Your task to perform on an android device: check data usage Image 0: 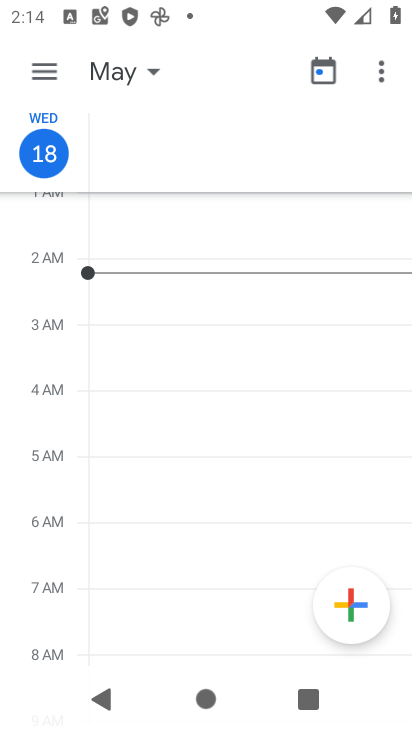
Step 0: press home button
Your task to perform on an android device: check data usage Image 1: 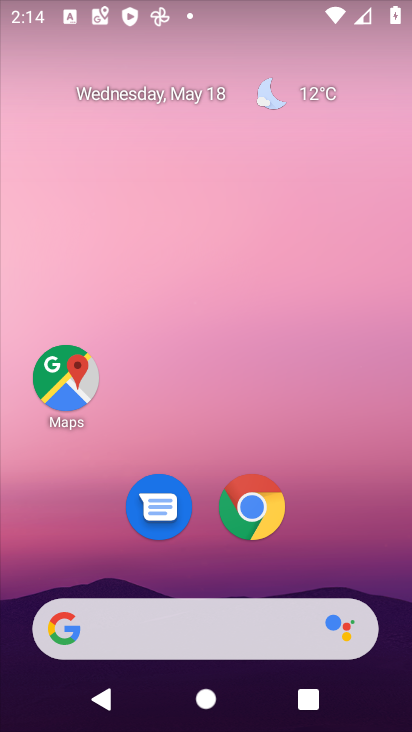
Step 1: drag from (396, 618) to (311, 169)
Your task to perform on an android device: check data usage Image 2: 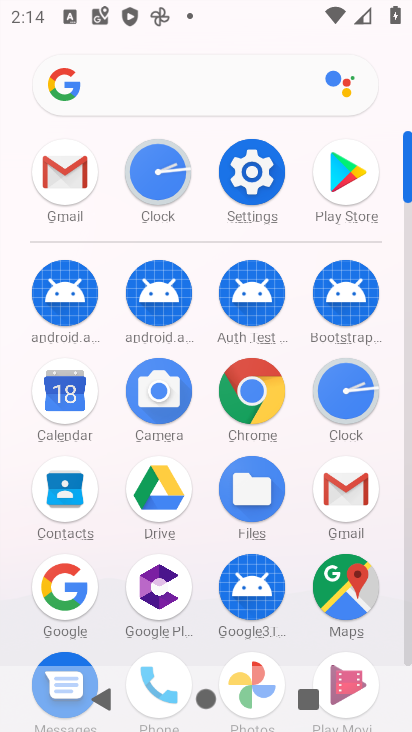
Step 2: click (408, 650)
Your task to perform on an android device: check data usage Image 3: 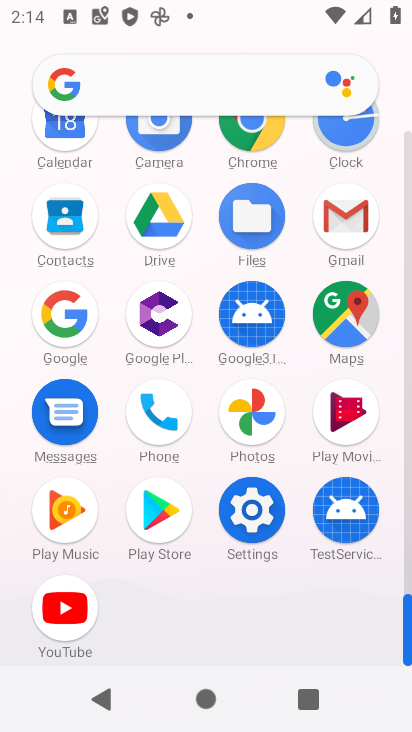
Step 3: click (251, 513)
Your task to perform on an android device: check data usage Image 4: 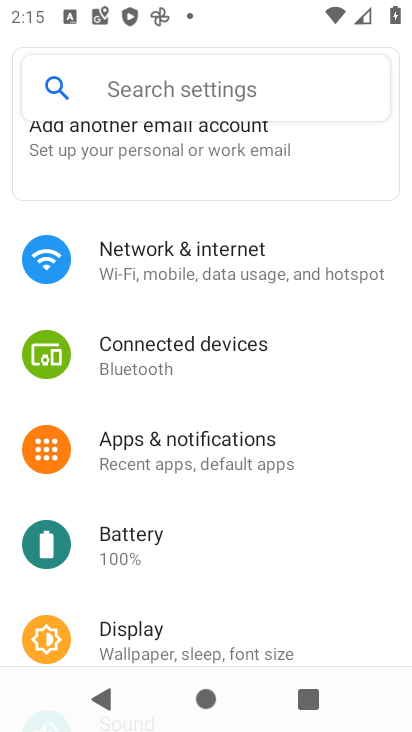
Step 4: click (192, 272)
Your task to perform on an android device: check data usage Image 5: 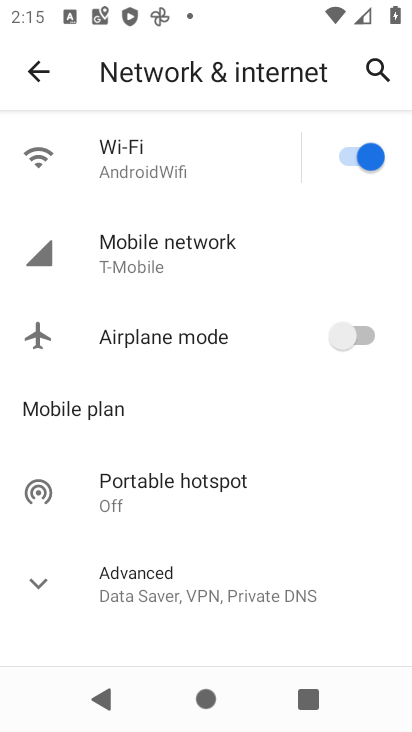
Step 5: click (167, 250)
Your task to perform on an android device: check data usage Image 6: 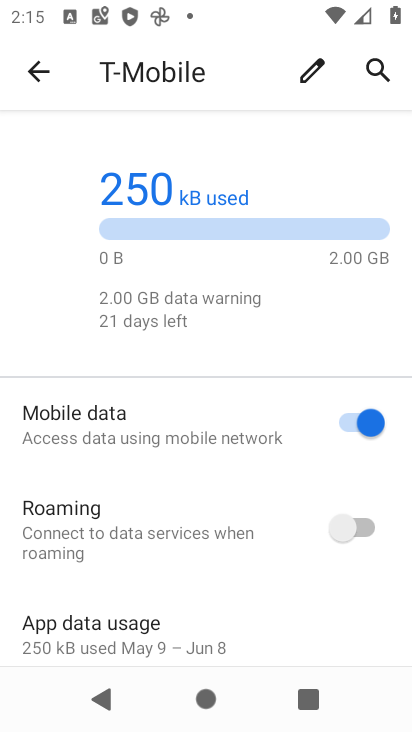
Step 6: task complete